Your task to perform on an android device: toggle data saver in the chrome app Image 0: 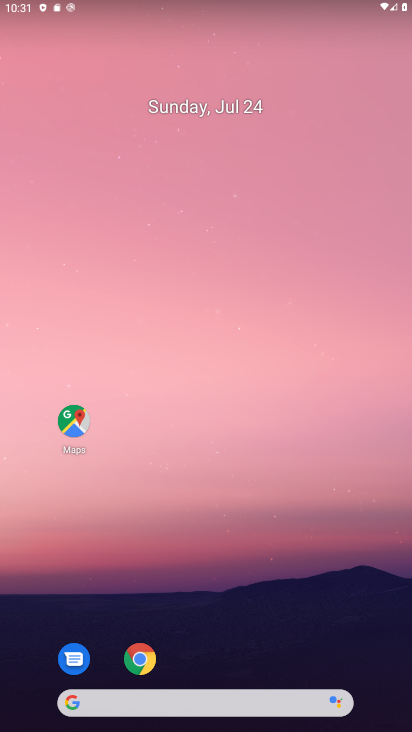
Step 0: press home button
Your task to perform on an android device: toggle data saver in the chrome app Image 1: 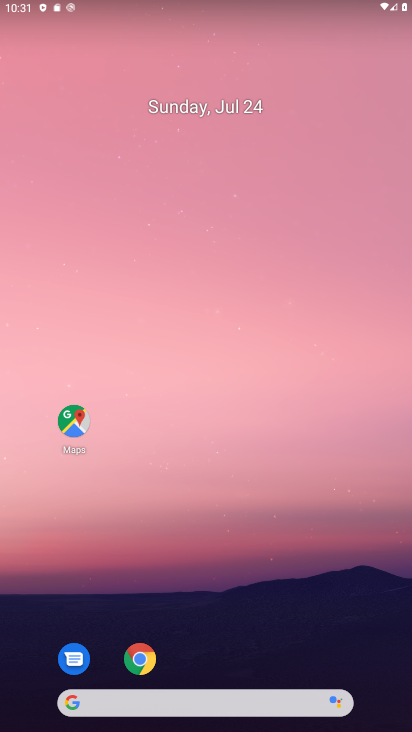
Step 1: drag from (325, 634) to (306, 179)
Your task to perform on an android device: toggle data saver in the chrome app Image 2: 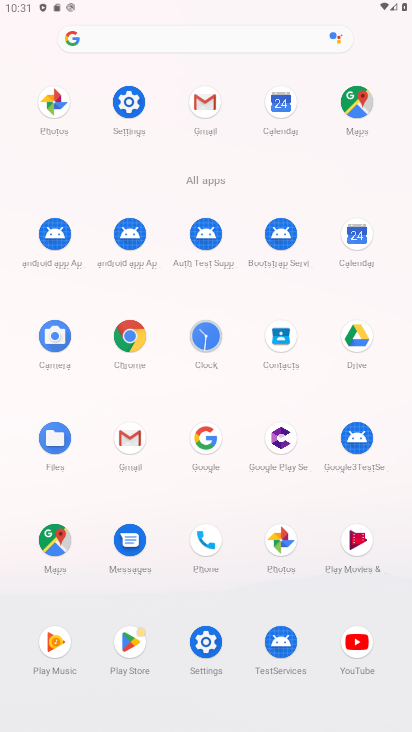
Step 2: click (137, 318)
Your task to perform on an android device: toggle data saver in the chrome app Image 3: 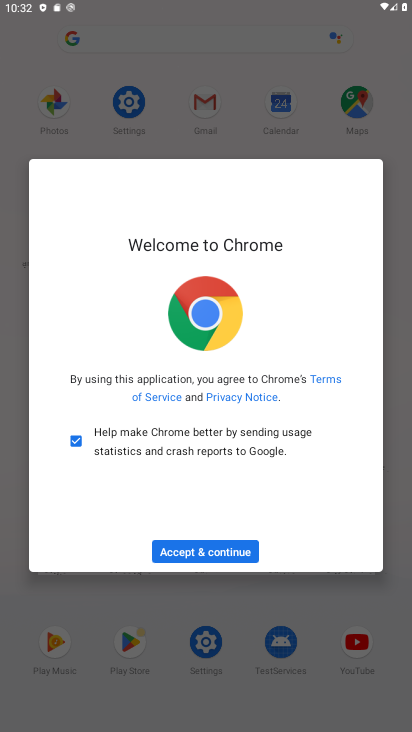
Step 3: click (191, 550)
Your task to perform on an android device: toggle data saver in the chrome app Image 4: 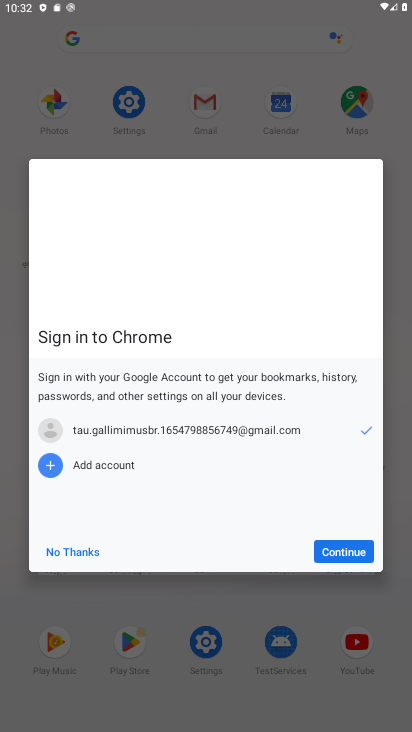
Step 4: click (250, 550)
Your task to perform on an android device: toggle data saver in the chrome app Image 5: 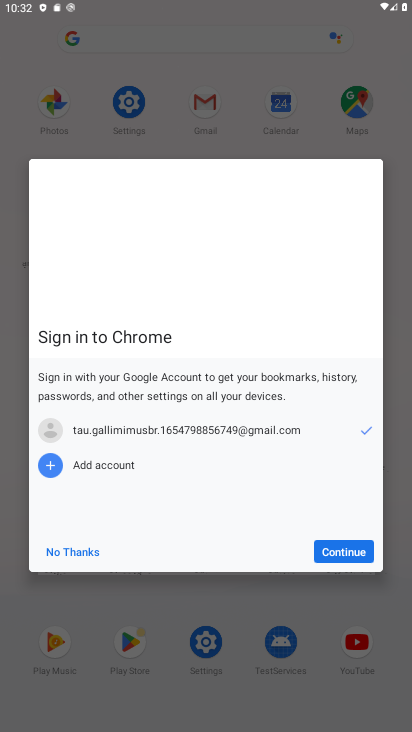
Step 5: click (367, 553)
Your task to perform on an android device: toggle data saver in the chrome app Image 6: 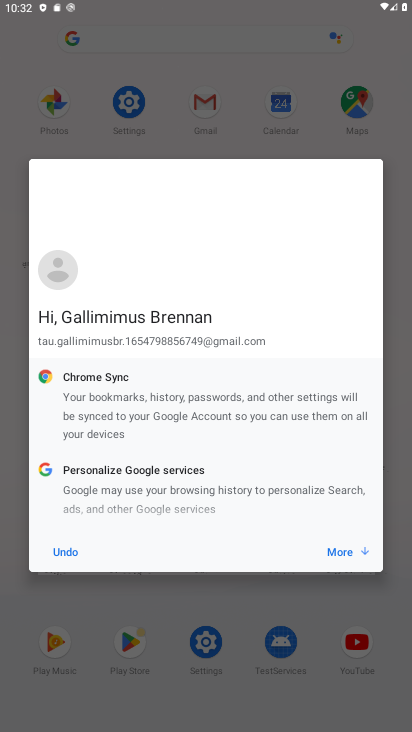
Step 6: click (367, 553)
Your task to perform on an android device: toggle data saver in the chrome app Image 7: 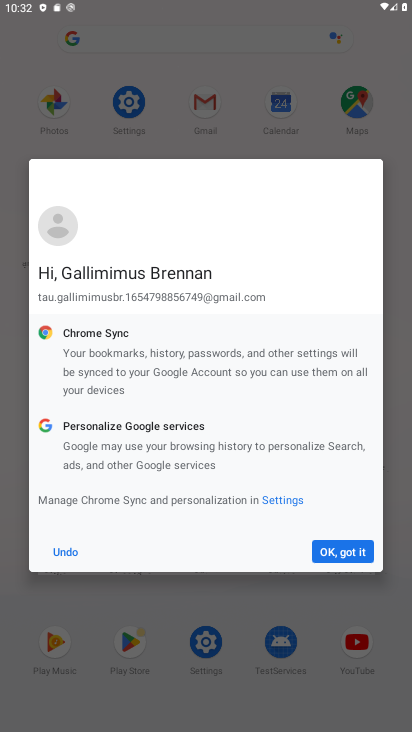
Step 7: click (344, 550)
Your task to perform on an android device: toggle data saver in the chrome app Image 8: 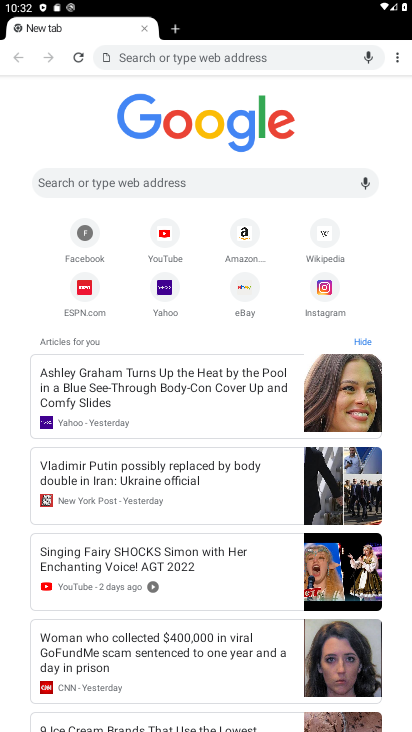
Step 8: drag from (396, 55) to (261, 258)
Your task to perform on an android device: toggle data saver in the chrome app Image 9: 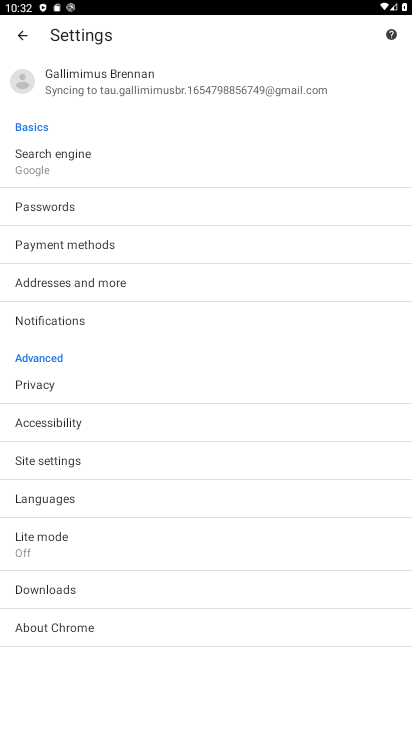
Step 9: click (36, 549)
Your task to perform on an android device: toggle data saver in the chrome app Image 10: 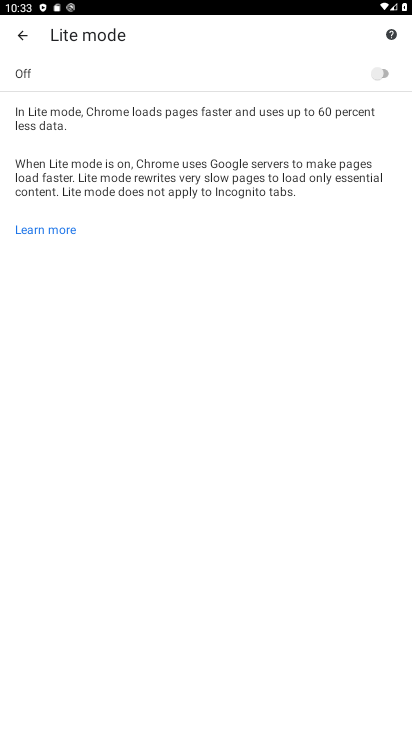
Step 10: click (321, 70)
Your task to perform on an android device: toggle data saver in the chrome app Image 11: 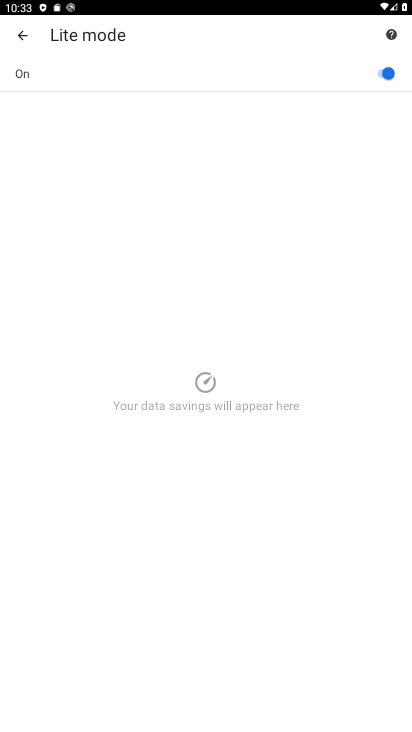
Step 11: task complete